Your task to perform on an android device: Open Chrome and go to the settings page Image 0: 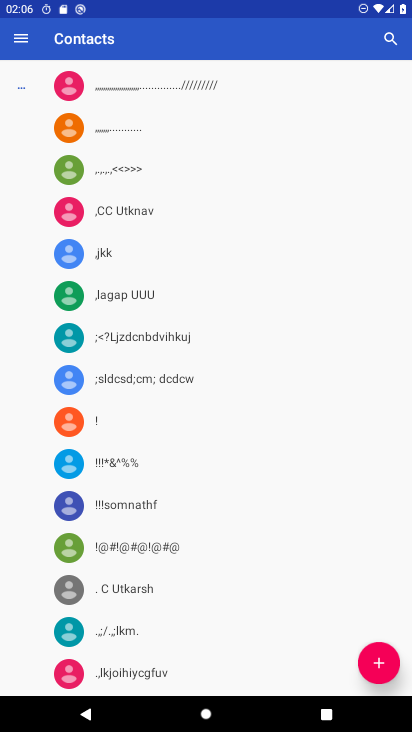
Step 0: press home button
Your task to perform on an android device: Open Chrome and go to the settings page Image 1: 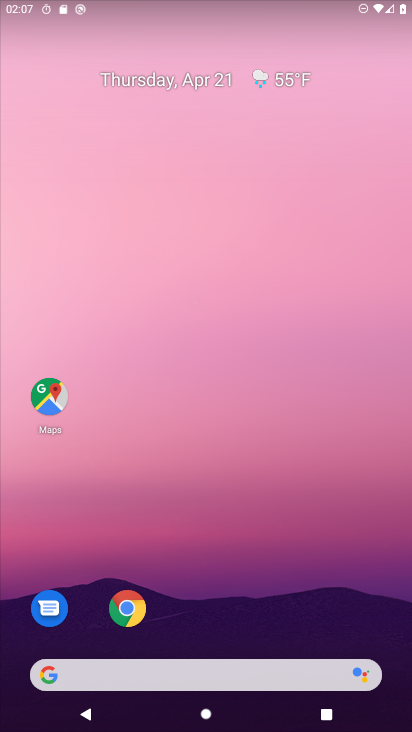
Step 1: click (130, 610)
Your task to perform on an android device: Open Chrome and go to the settings page Image 2: 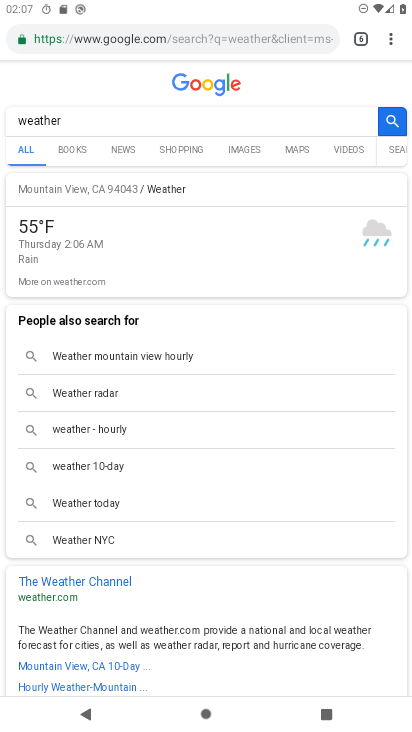
Step 2: task complete